Your task to perform on an android device: Open battery settings Image 0: 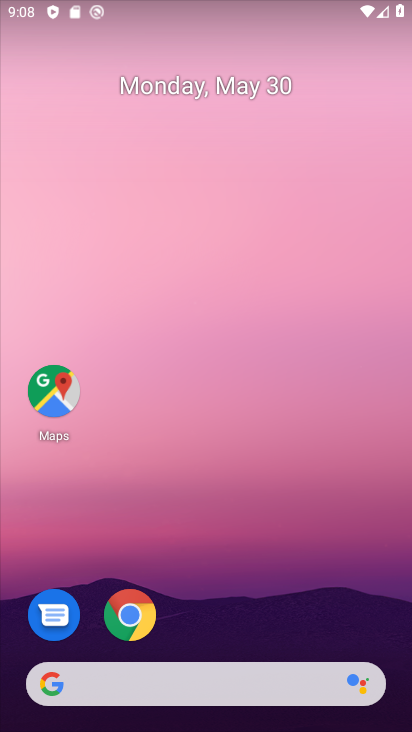
Step 0: drag from (210, 719) to (330, 31)
Your task to perform on an android device: Open battery settings Image 1: 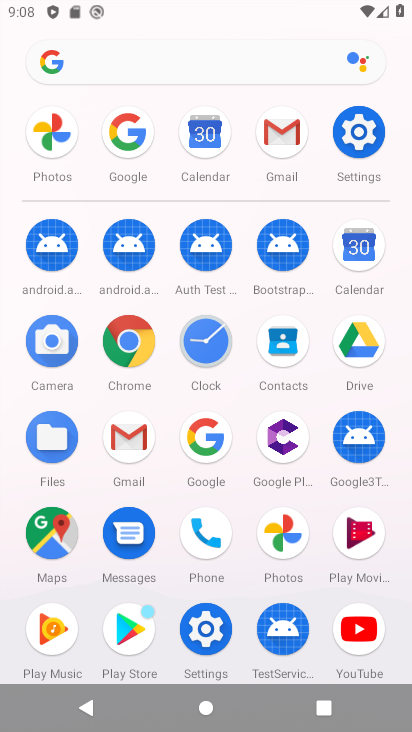
Step 1: click (354, 131)
Your task to perform on an android device: Open battery settings Image 2: 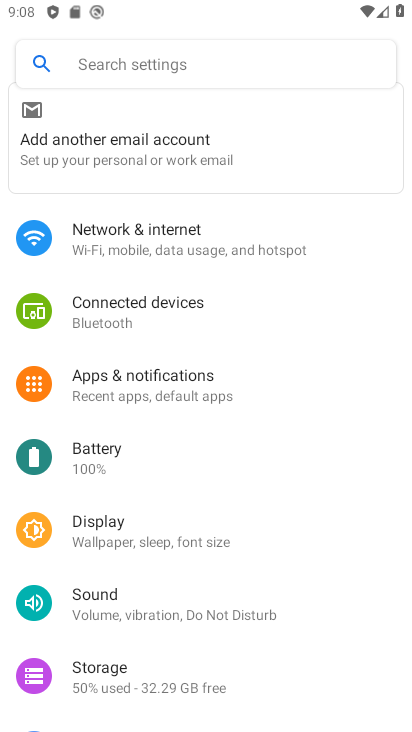
Step 2: click (116, 463)
Your task to perform on an android device: Open battery settings Image 3: 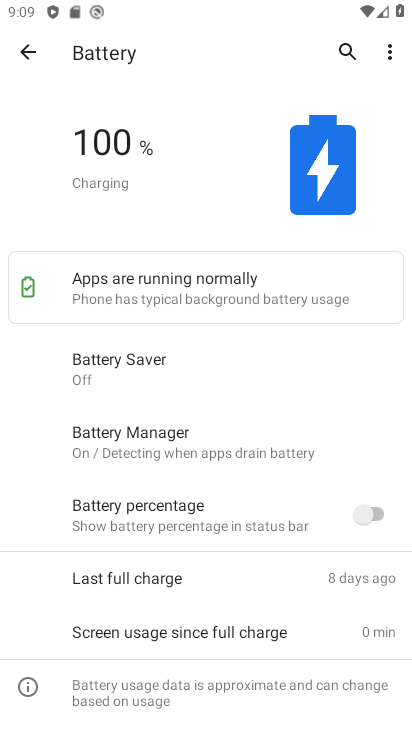
Step 3: task complete